Your task to perform on an android device: turn off notifications settings in the gmail app Image 0: 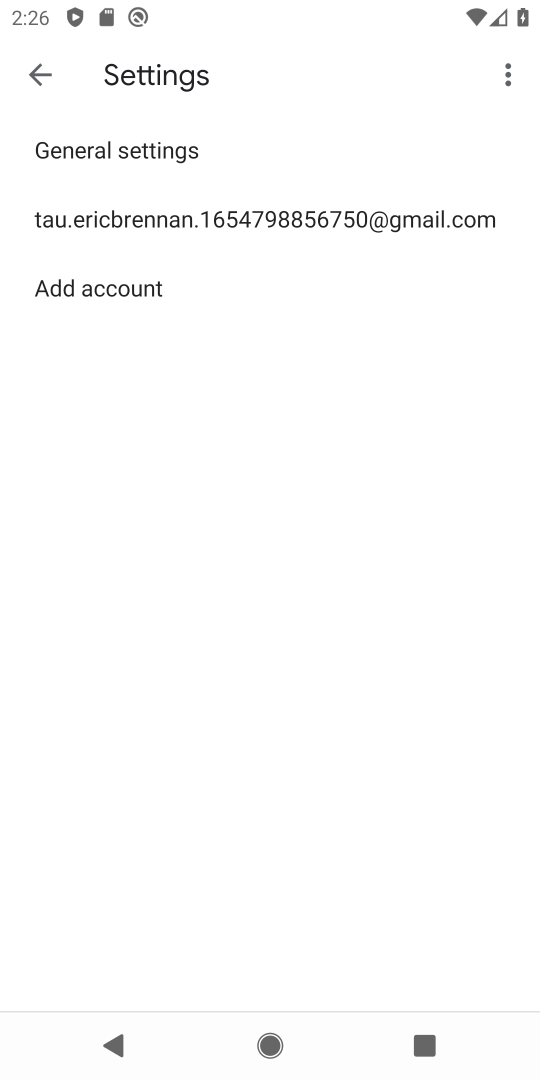
Step 0: press home button
Your task to perform on an android device: turn off notifications settings in the gmail app Image 1: 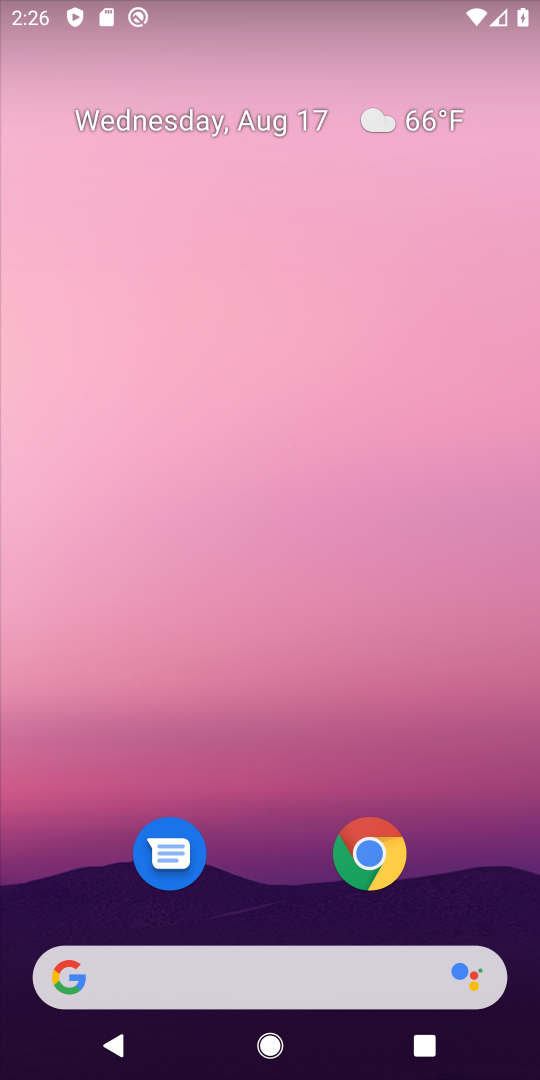
Step 1: drag from (254, 883) to (315, 95)
Your task to perform on an android device: turn off notifications settings in the gmail app Image 2: 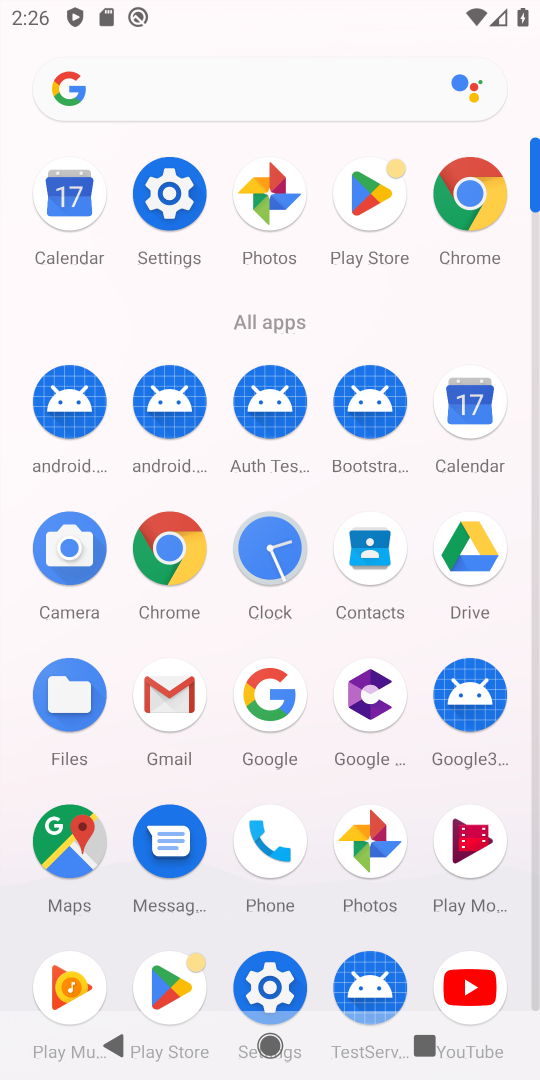
Step 2: click (161, 695)
Your task to perform on an android device: turn off notifications settings in the gmail app Image 3: 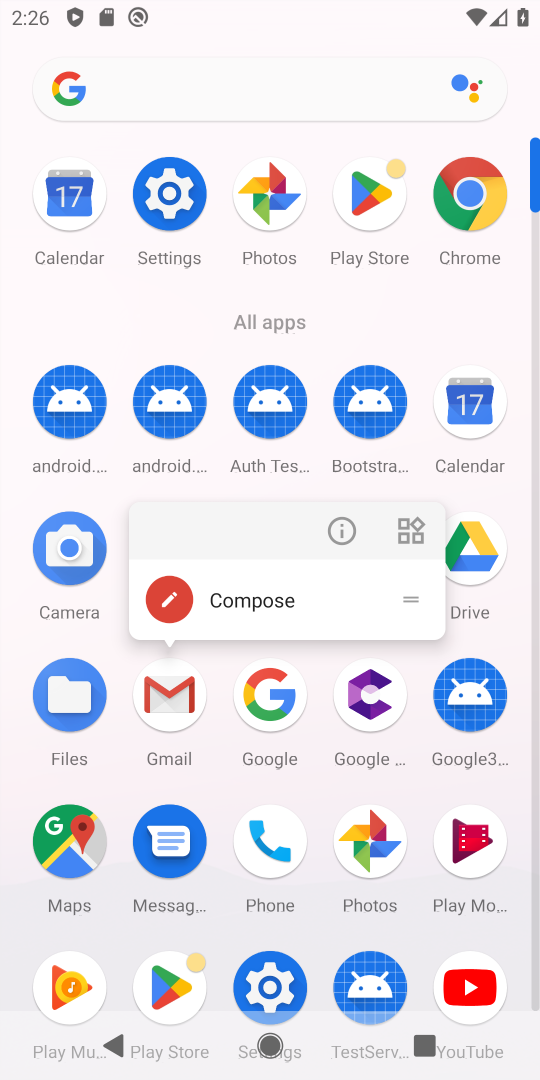
Step 3: click (344, 527)
Your task to perform on an android device: turn off notifications settings in the gmail app Image 4: 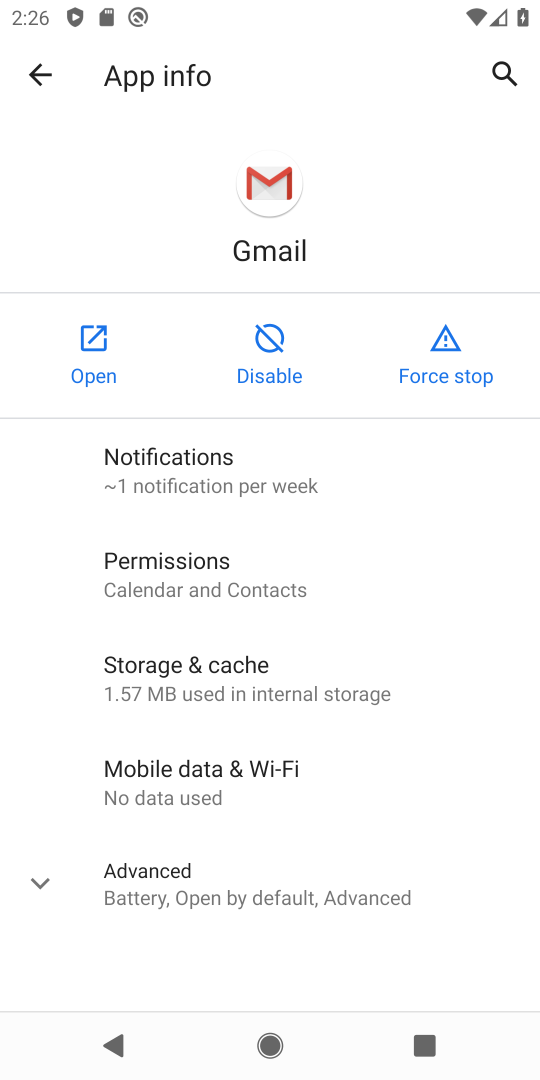
Step 4: click (211, 475)
Your task to perform on an android device: turn off notifications settings in the gmail app Image 5: 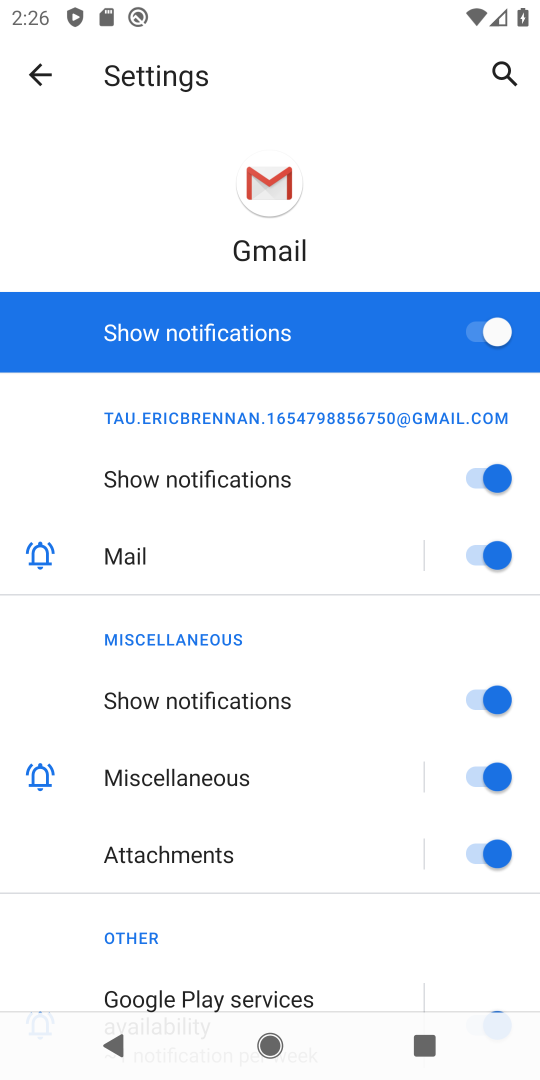
Step 5: click (324, 331)
Your task to perform on an android device: turn off notifications settings in the gmail app Image 6: 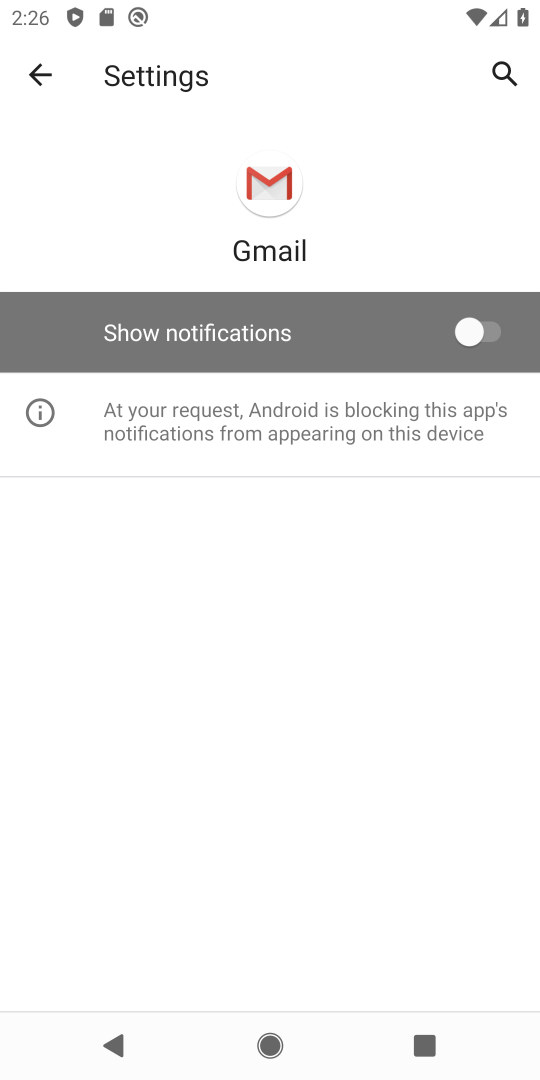
Step 6: task complete